Your task to perform on an android device: What is the speed of a plane? Image 0: 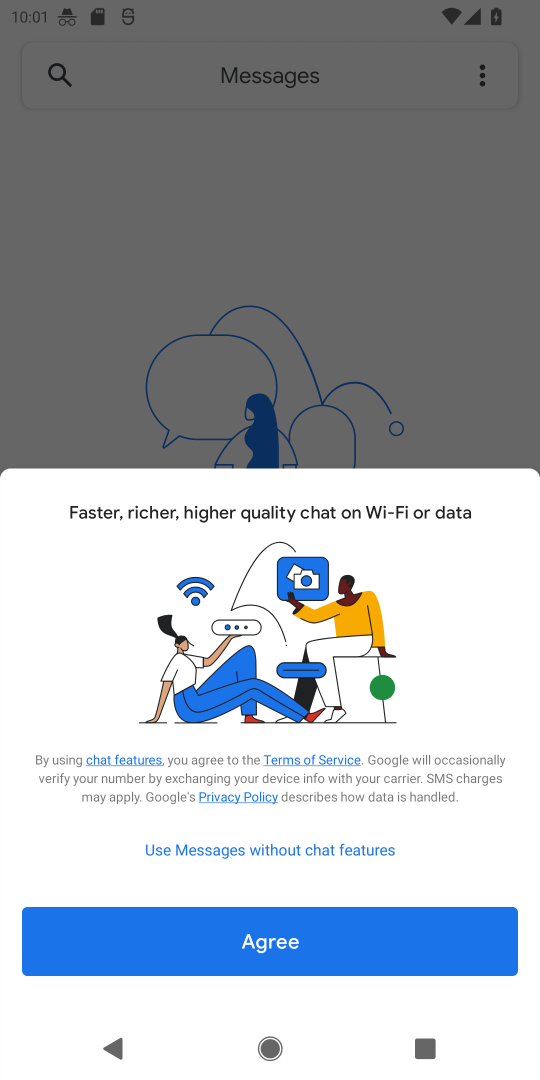
Step 0: press home button
Your task to perform on an android device: What is the speed of a plane? Image 1: 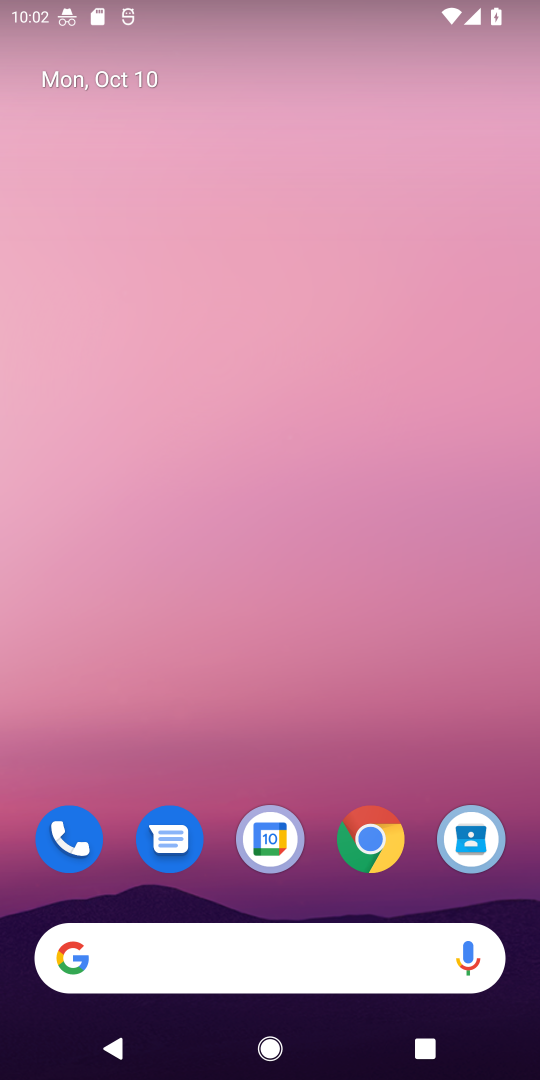
Step 1: drag from (315, 896) to (373, 146)
Your task to perform on an android device: What is the speed of a plane? Image 2: 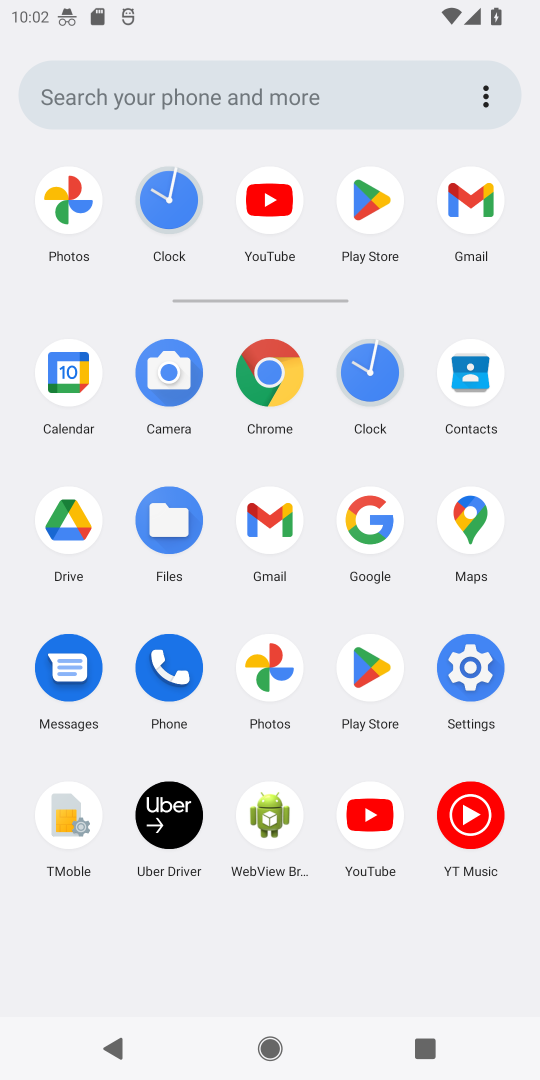
Step 2: click (271, 368)
Your task to perform on an android device: What is the speed of a plane? Image 3: 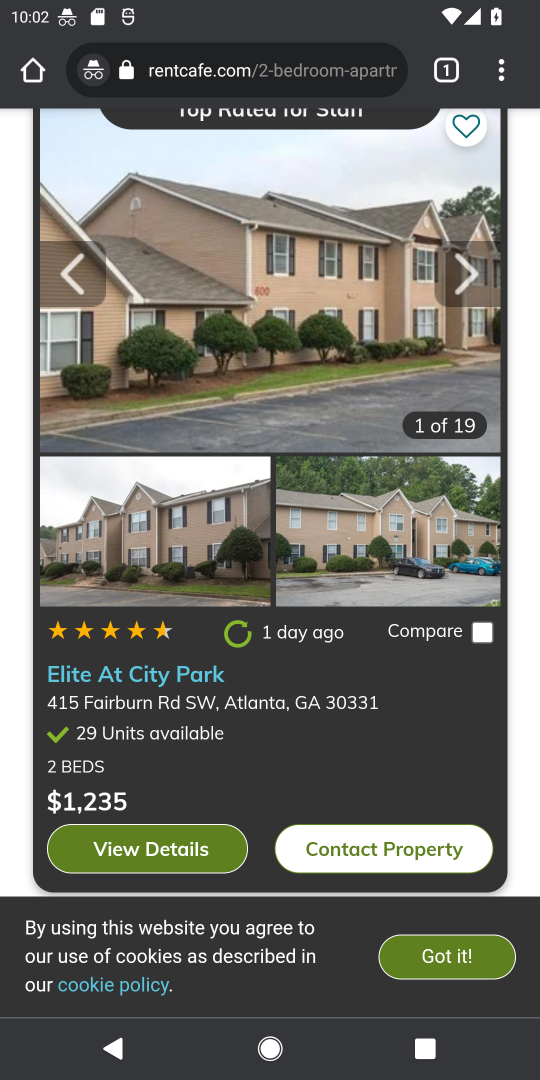
Step 3: click (317, 61)
Your task to perform on an android device: What is the speed of a plane? Image 4: 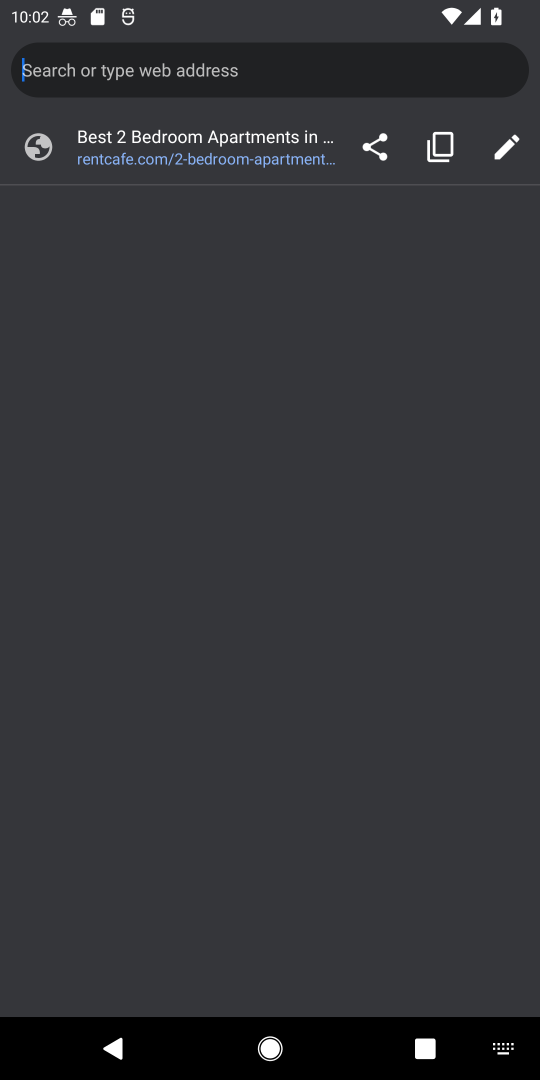
Step 4: type "What is the speed of the plane?"
Your task to perform on an android device: What is the speed of a plane? Image 5: 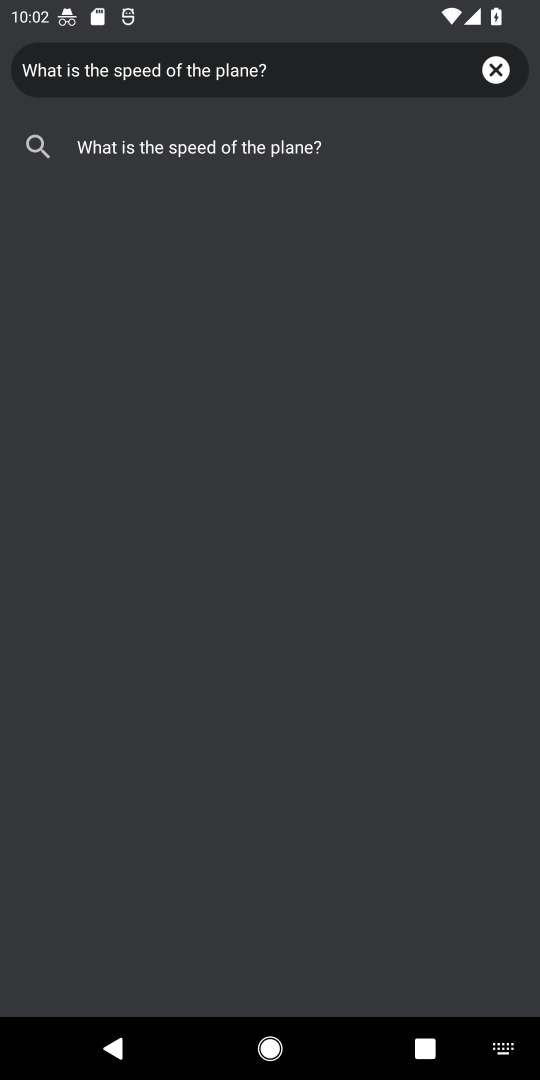
Step 5: press enter
Your task to perform on an android device: What is the speed of a plane? Image 6: 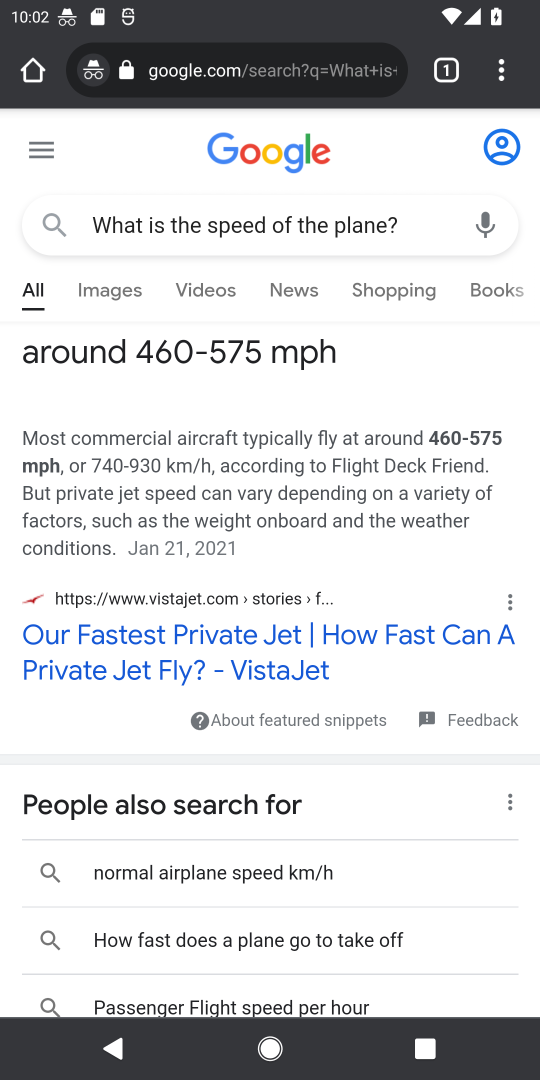
Step 6: task complete